Your task to perform on an android device: turn on improve location accuracy Image 0: 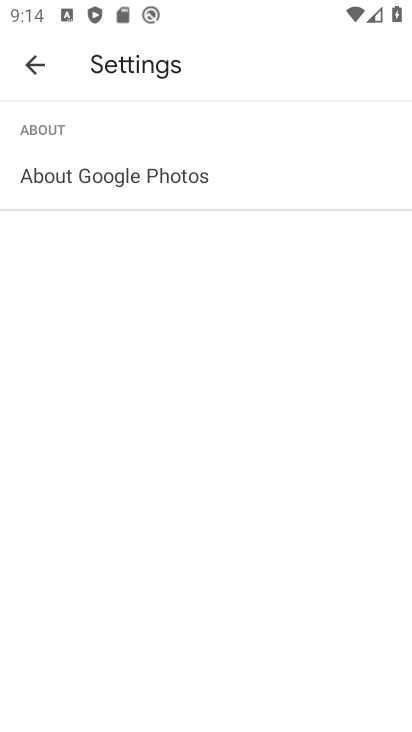
Step 0: press home button
Your task to perform on an android device: turn on improve location accuracy Image 1: 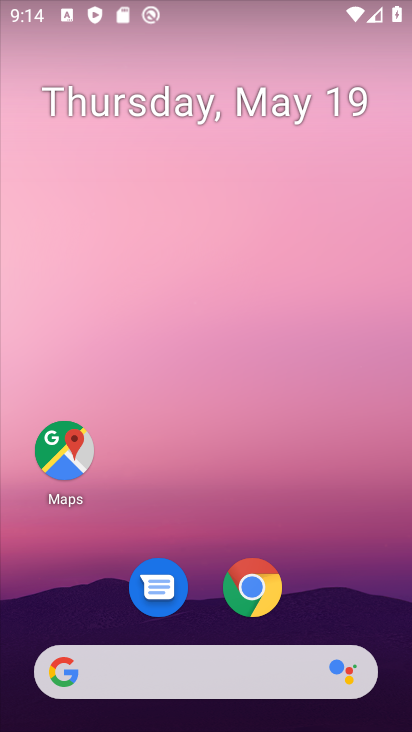
Step 1: drag from (371, 354) to (361, 92)
Your task to perform on an android device: turn on improve location accuracy Image 2: 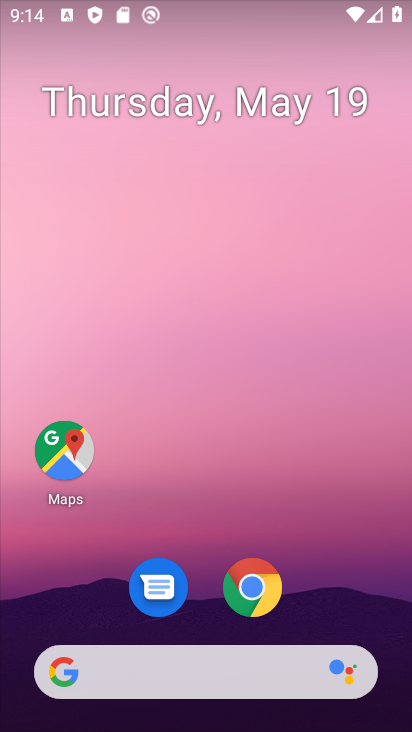
Step 2: drag from (357, 557) to (398, 8)
Your task to perform on an android device: turn on improve location accuracy Image 3: 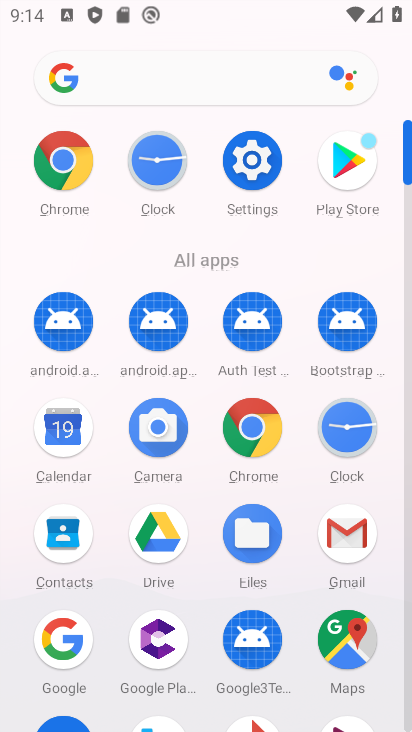
Step 3: click (231, 177)
Your task to perform on an android device: turn on improve location accuracy Image 4: 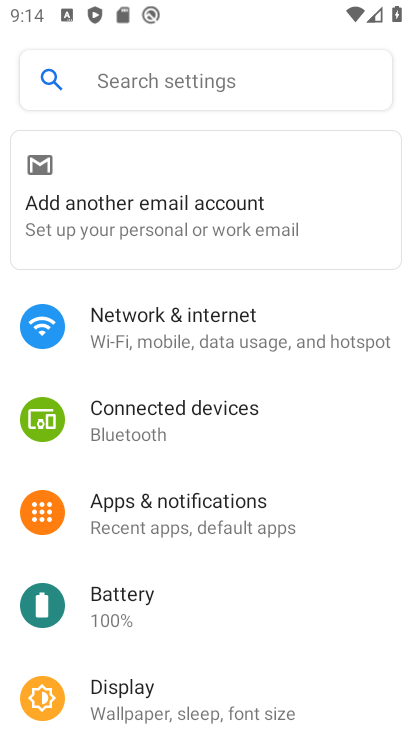
Step 4: drag from (273, 637) to (256, 68)
Your task to perform on an android device: turn on improve location accuracy Image 5: 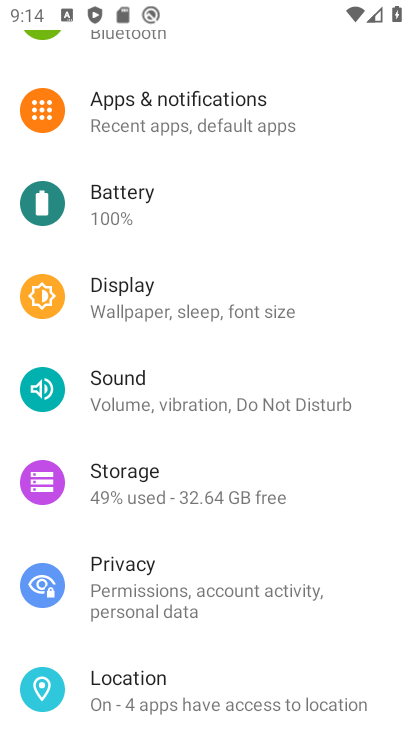
Step 5: drag from (303, 593) to (255, 223)
Your task to perform on an android device: turn on improve location accuracy Image 6: 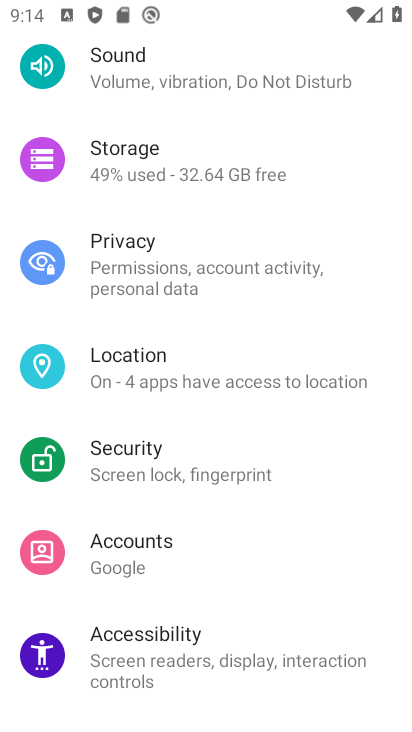
Step 6: click (165, 371)
Your task to perform on an android device: turn on improve location accuracy Image 7: 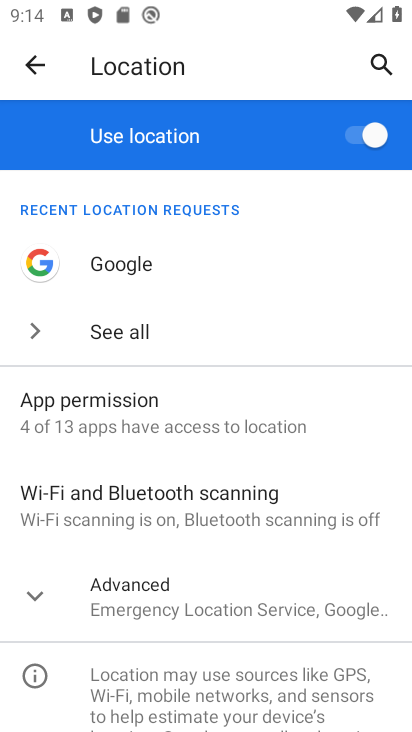
Step 7: drag from (246, 567) to (266, 265)
Your task to perform on an android device: turn on improve location accuracy Image 8: 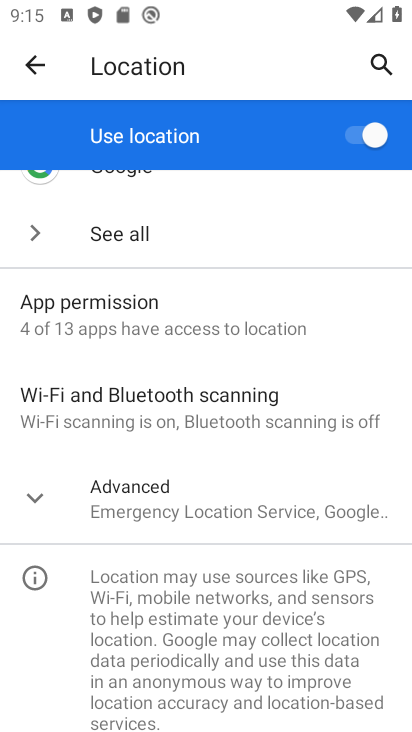
Step 8: drag from (292, 564) to (330, 300)
Your task to perform on an android device: turn on improve location accuracy Image 9: 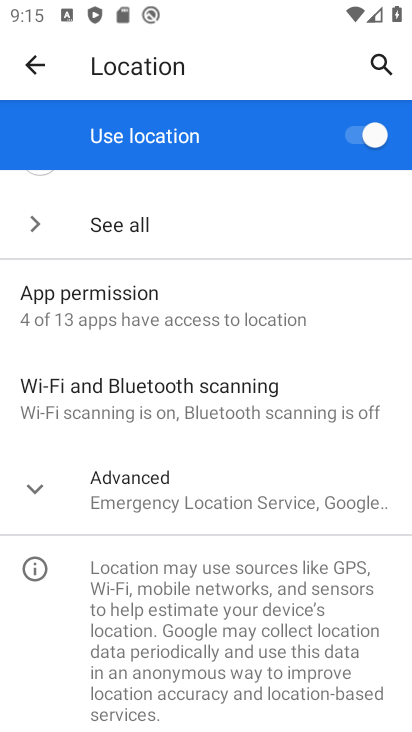
Step 9: click (191, 487)
Your task to perform on an android device: turn on improve location accuracy Image 10: 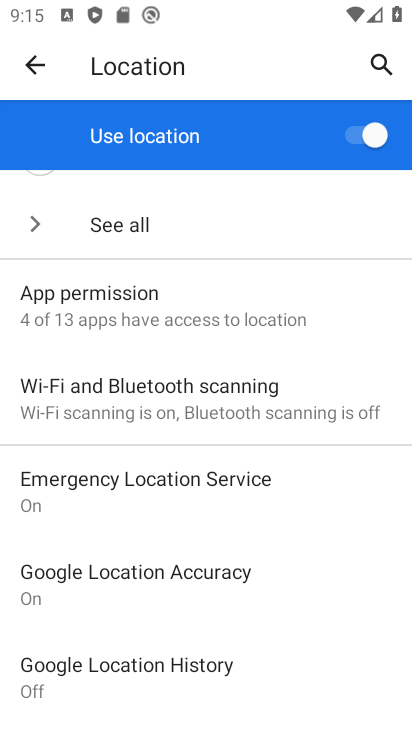
Step 10: drag from (209, 630) to (277, 388)
Your task to perform on an android device: turn on improve location accuracy Image 11: 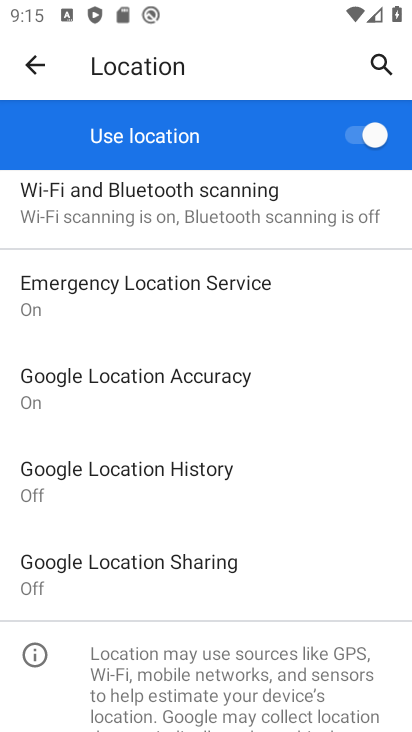
Step 11: click (178, 387)
Your task to perform on an android device: turn on improve location accuracy Image 12: 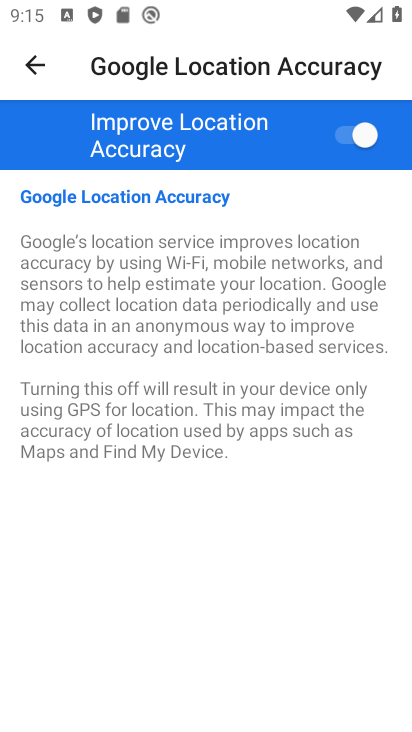
Step 12: task complete